Your task to perform on an android device: Turn on the flashlight Image 0: 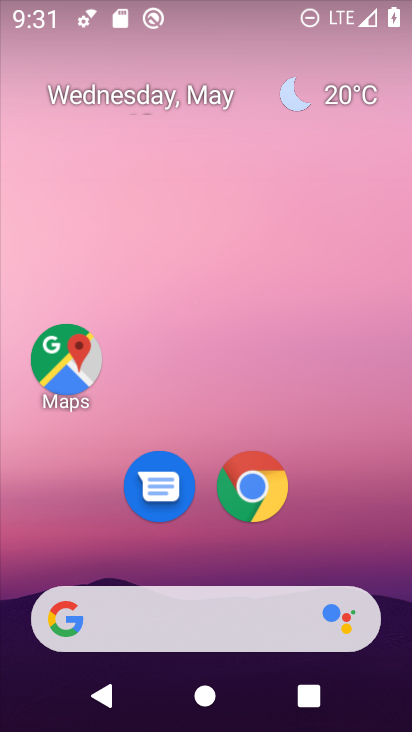
Step 0: drag from (226, 13) to (345, 558)
Your task to perform on an android device: Turn on the flashlight Image 1: 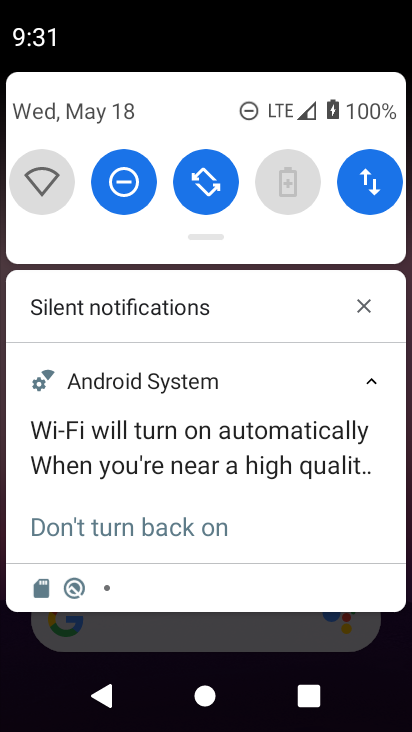
Step 1: drag from (208, 242) to (265, 551)
Your task to perform on an android device: Turn on the flashlight Image 2: 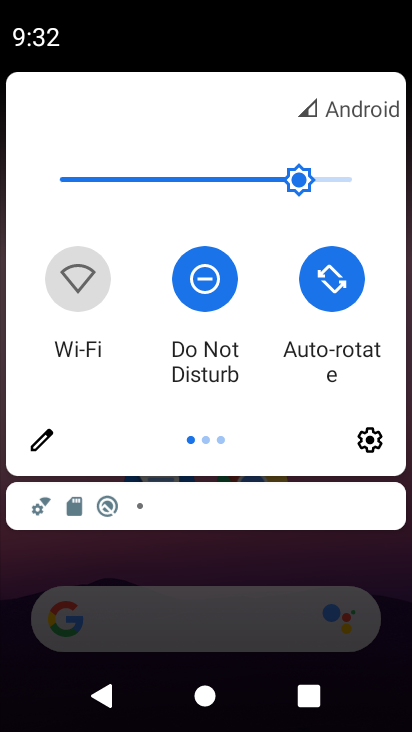
Step 2: click (34, 438)
Your task to perform on an android device: Turn on the flashlight Image 3: 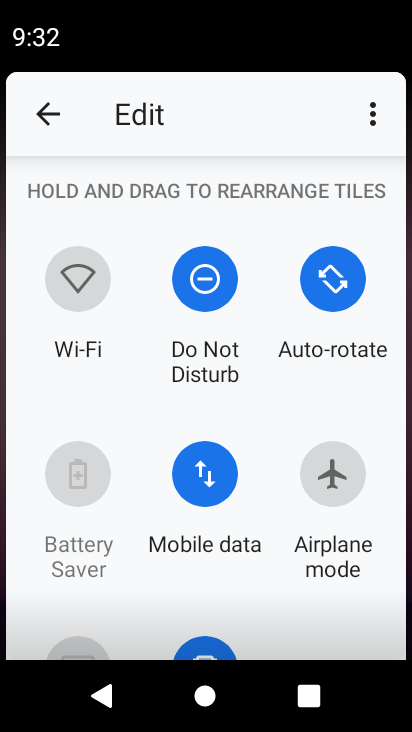
Step 3: task complete